Your task to perform on an android device: turn on sleep mode Image 0: 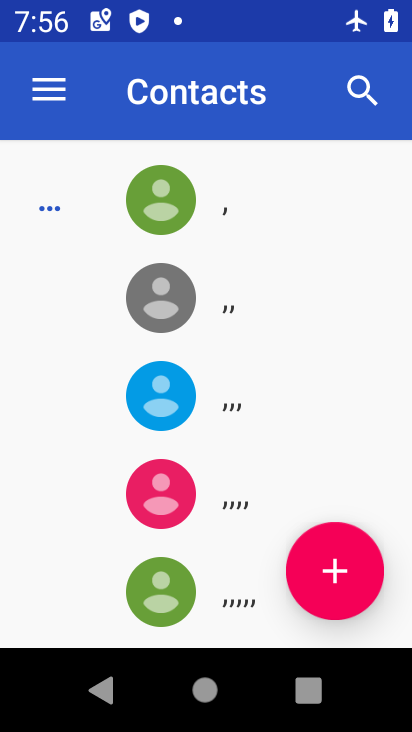
Step 0: press home button
Your task to perform on an android device: turn on sleep mode Image 1: 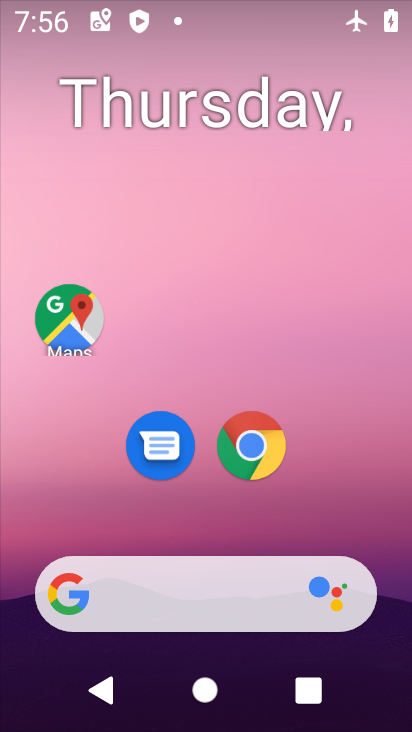
Step 1: drag from (400, 609) to (311, 4)
Your task to perform on an android device: turn on sleep mode Image 2: 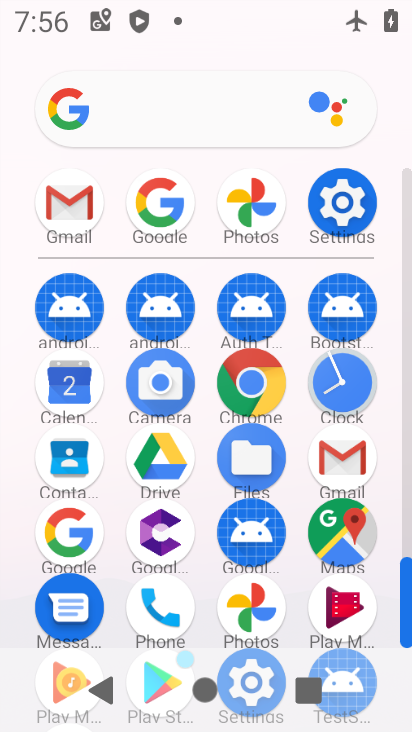
Step 2: click (345, 202)
Your task to perform on an android device: turn on sleep mode Image 3: 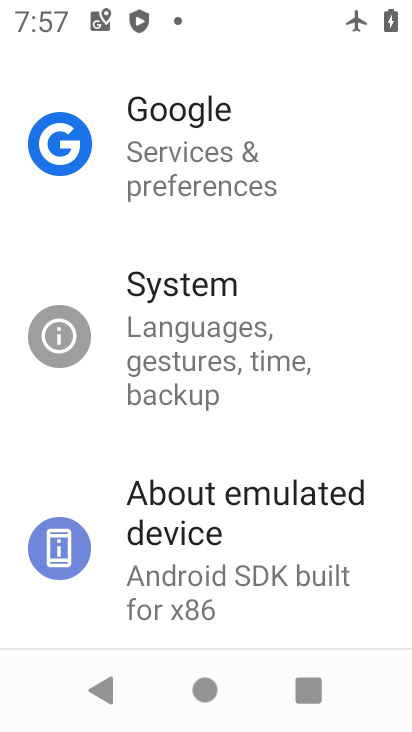
Step 3: task complete